Your task to perform on an android device: Check the weather Image 0: 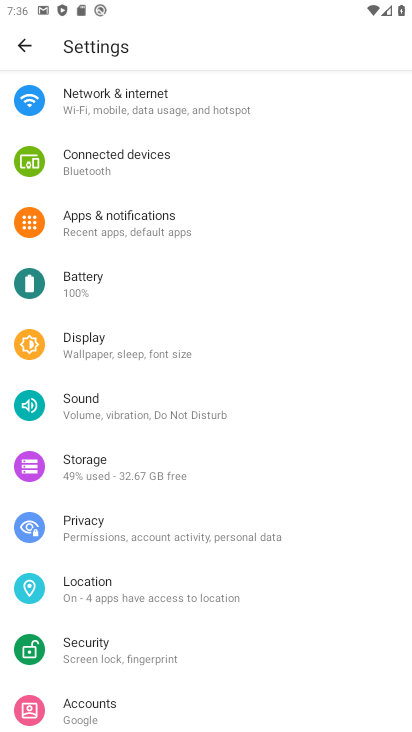
Step 0: press home button
Your task to perform on an android device: Check the weather Image 1: 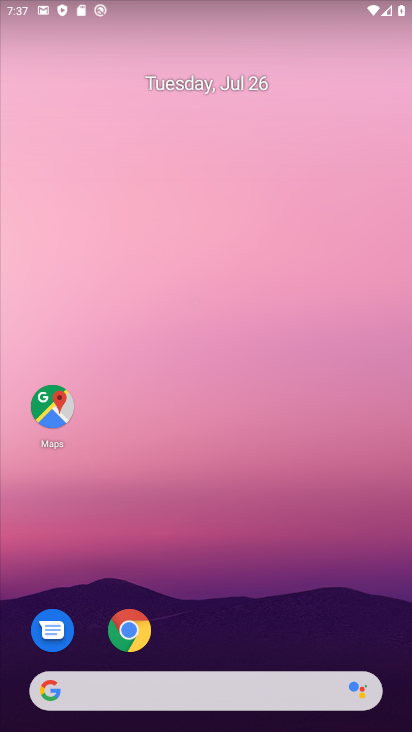
Step 1: click (229, 700)
Your task to perform on an android device: Check the weather Image 2: 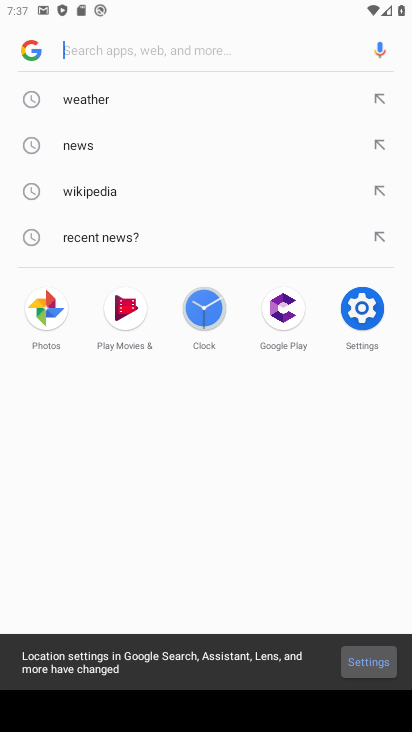
Step 2: click (99, 99)
Your task to perform on an android device: Check the weather Image 3: 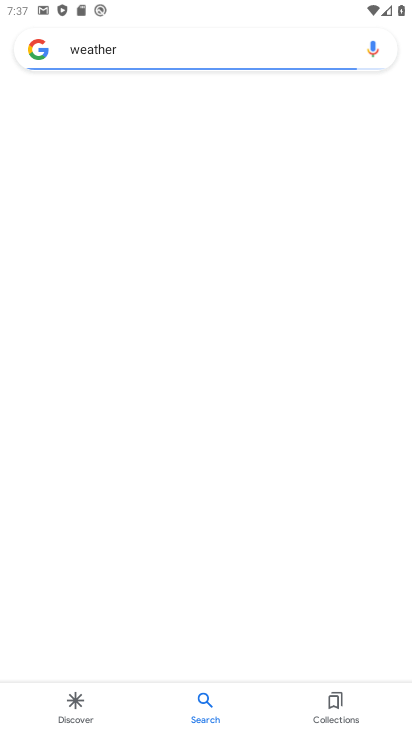
Step 3: task complete